Your task to perform on an android device: delete a single message in the gmail app Image 0: 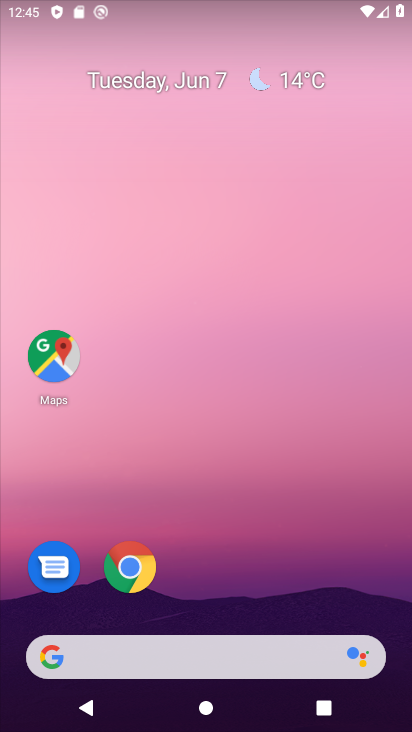
Step 0: drag from (397, 705) to (360, 165)
Your task to perform on an android device: delete a single message in the gmail app Image 1: 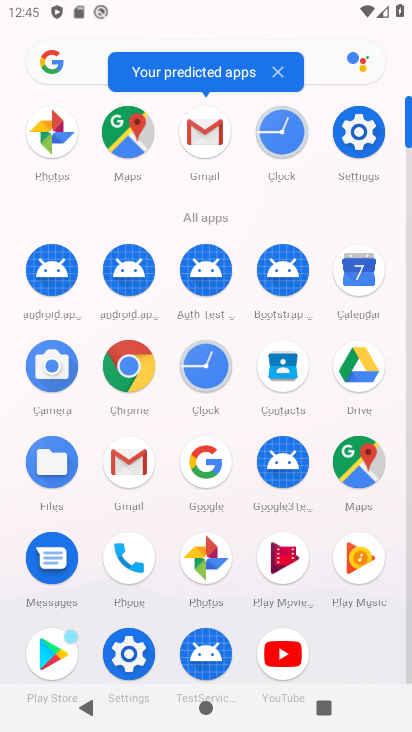
Step 1: click (132, 465)
Your task to perform on an android device: delete a single message in the gmail app Image 2: 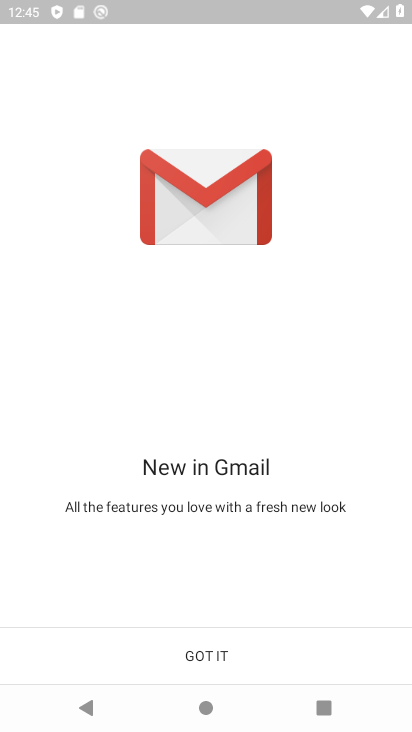
Step 2: click (195, 647)
Your task to perform on an android device: delete a single message in the gmail app Image 3: 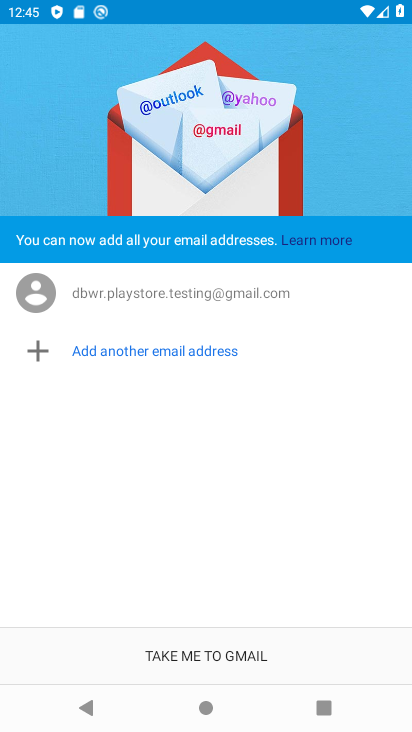
Step 3: click (195, 647)
Your task to perform on an android device: delete a single message in the gmail app Image 4: 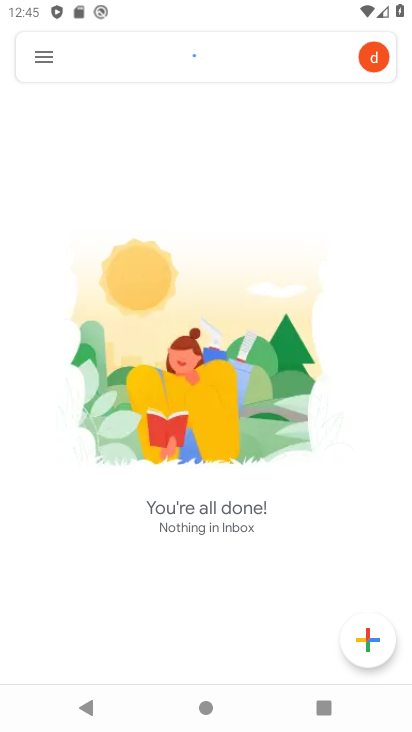
Step 4: click (35, 58)
Your task to perform on an android device: delete a single message in the gmail app Image 5: 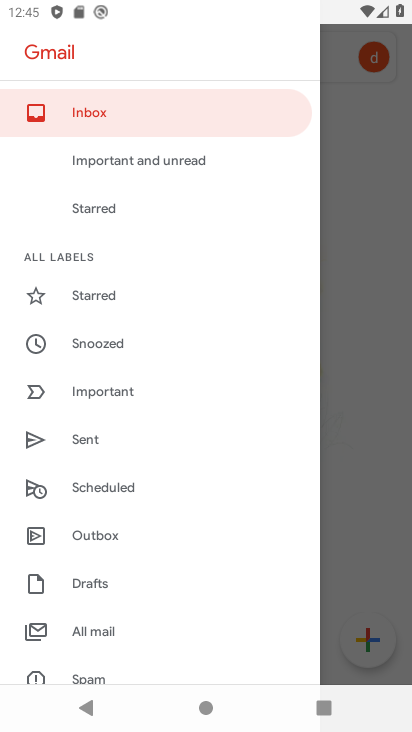
Step 5: click (96, 115)
Your task to perform on an android device: delete a single message in the gmail app Image 6: 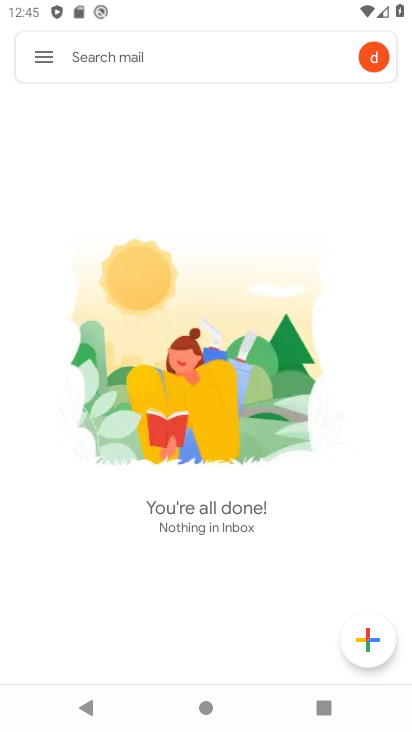
Step 6: task complete